Your task to perform on an android device: Open the web browser Image 0: 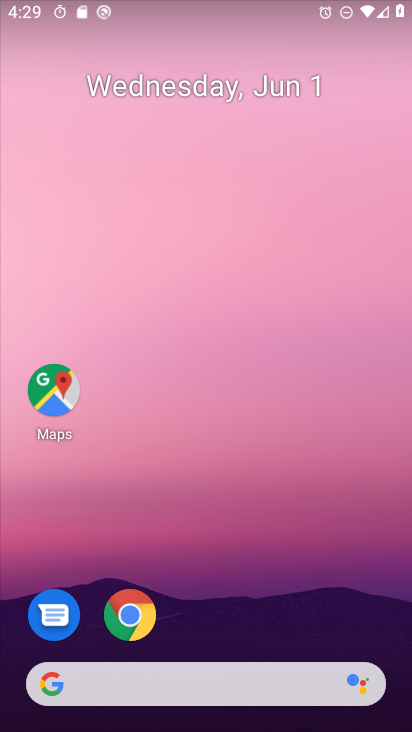
Step 0: drag from (261, 620) to (266, 104)
Your task to perform on an android device: Open the web browser Image 1: 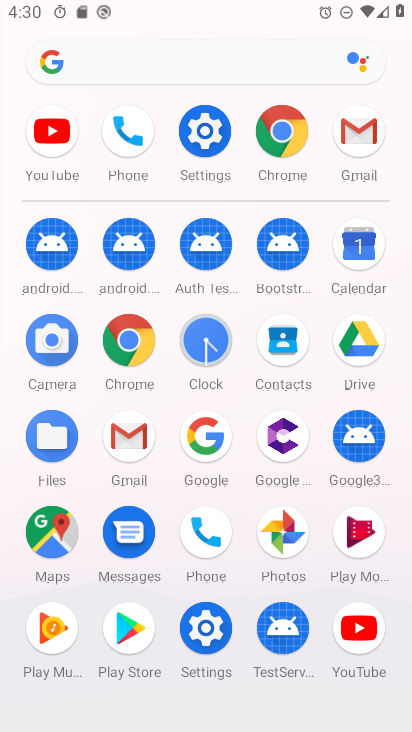
Step 1: click (278, 141)
Your task to perform on an android device: Open the web browser Image 2: 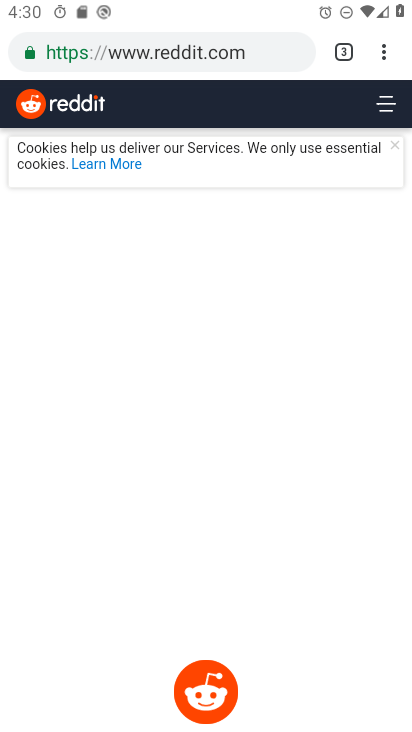
Step 2: press home button
Your task to perform on an android device: Open the web browser Image 3: 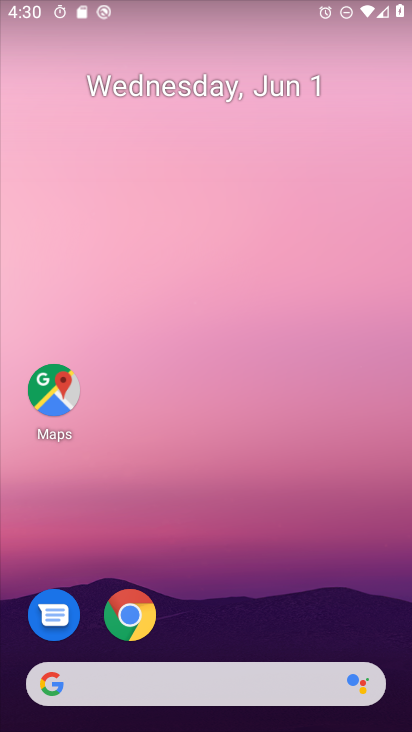
Step 3: drag from (217, 596) to (219, 0)
Your task to perform on an android device: Open the web browser Image 4: 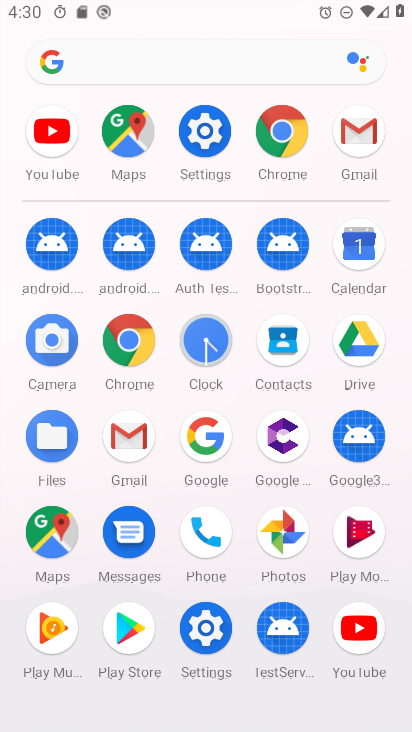
Step 4: drag from (267, 538) to (280, 278)
Your task to perform on an android device: Open the web browser Image 5: 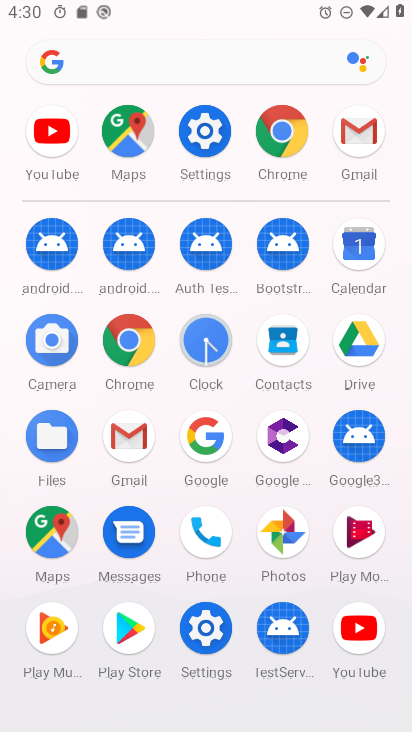
Step 5: click (282, 153)
Your task to perform on an android device: Open the web browser Image 6: 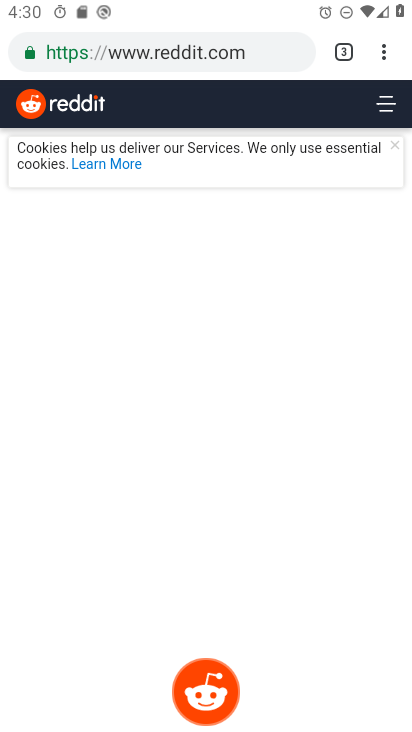
Step 6: task complete